Your task to perform on an android device: Go to Wikipedia Image 0: 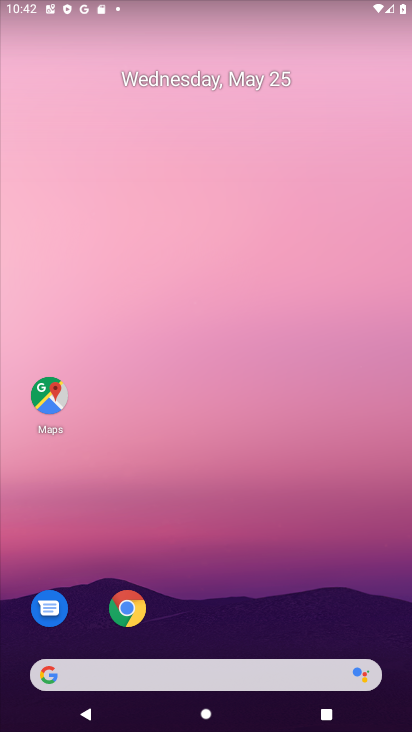
Step 0: click (126, 607)
Your task to perform on an android device: Go to Wikipedia Image 1: 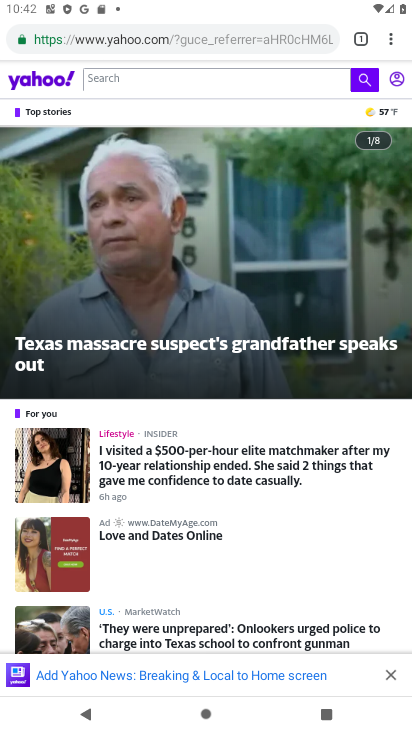
Step 1: click (87, 42)
Your task to perform on an android device: Go to Wikipedia Image 2: 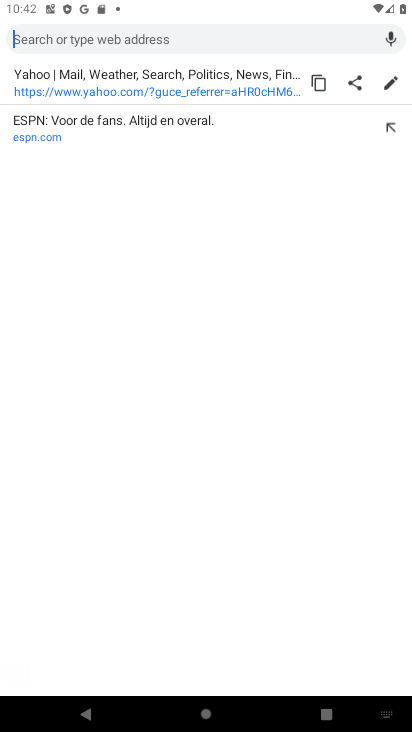
Step 2: type "wikipedia"
Your task to perform on an android device: Go to Wikipedia Image 3: 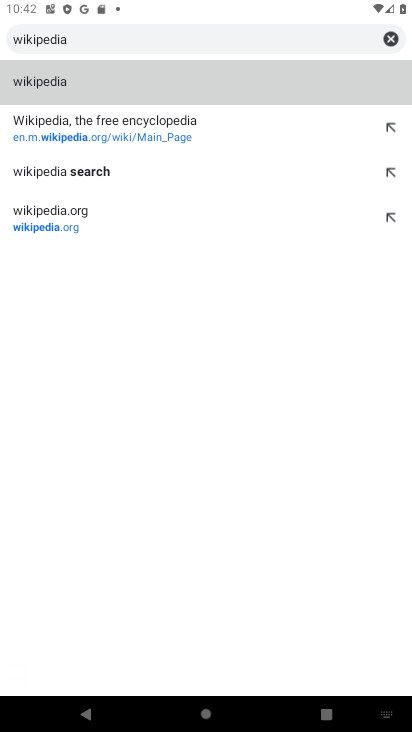
Step 3: click (30, 88)
Your task to perform on an android device: Go to Wikipedia Image 4: 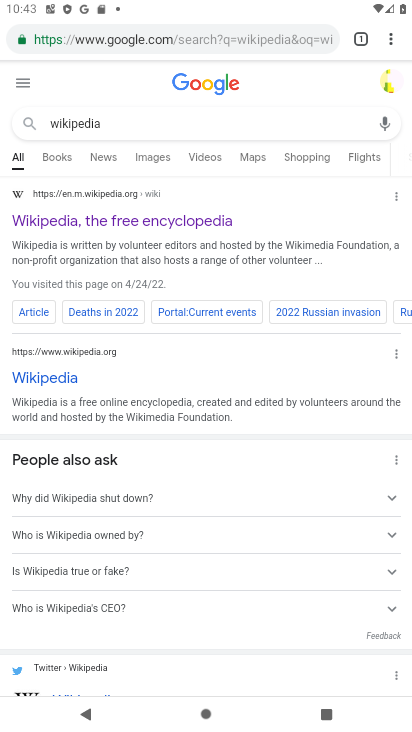
Step 4: click (44, 228)
Your task to perform on an android device: Go to Wikipedia Image 5: 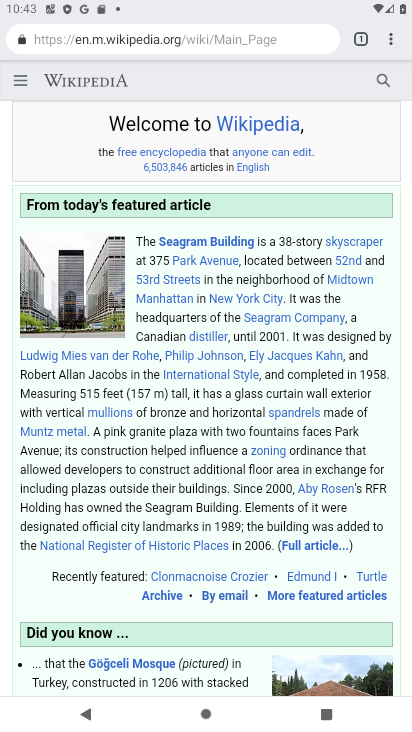
Step 5: task complete